Your task to perform on an android device: refresh tabs in the chrome app Image 0: 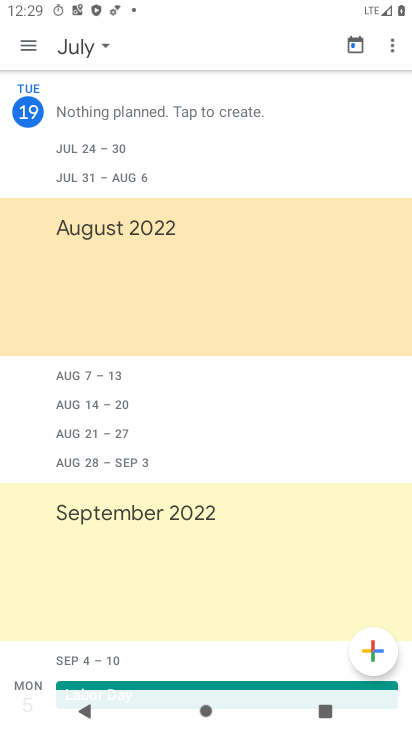
Step 0: press home button
Your task to perform on an android device: refresh tabs in the chrome app Image 1: 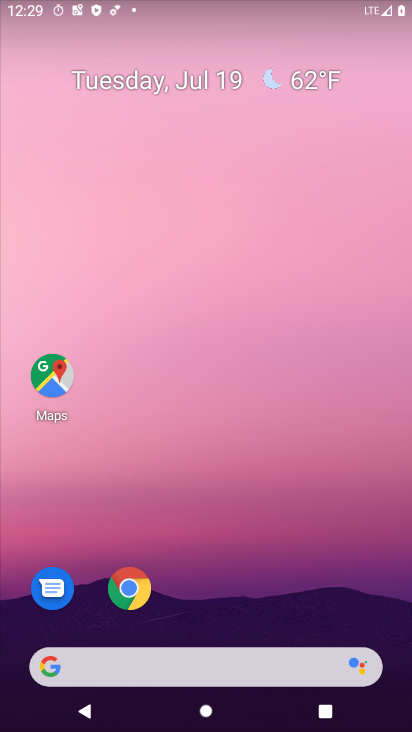
Step 1: click (131, 601)
Your task to perform on an android device: refresh tabs in the chrome app Image 2: 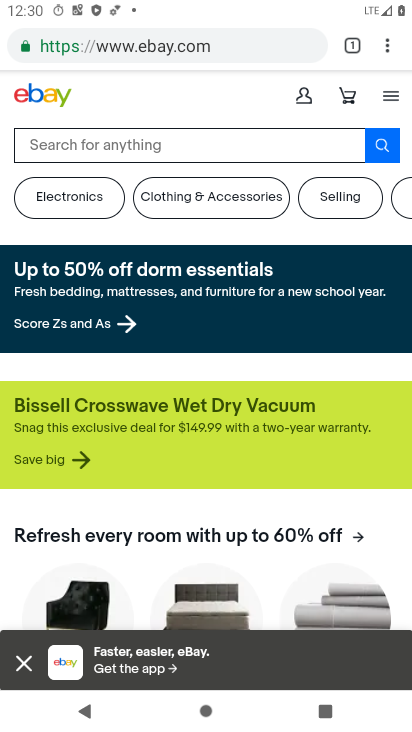
Step 2: click (383, 39)
Your task to perform on an android device: refresh tabs in the chrome app Image 3: 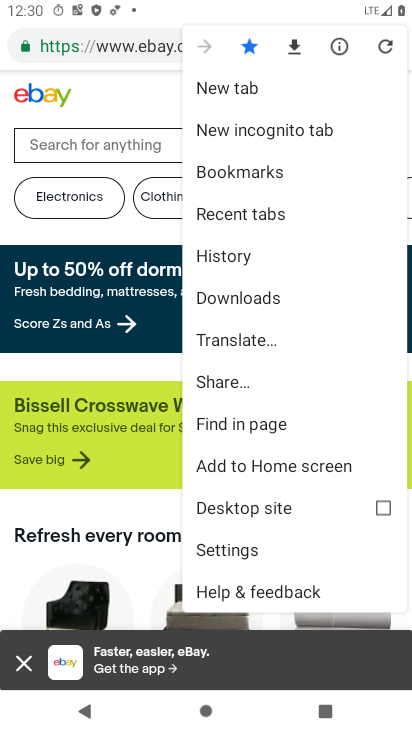
Step 3: click (383, 39)
Your task to perform on an android device: refresh tabs in the chrome app Image 4: 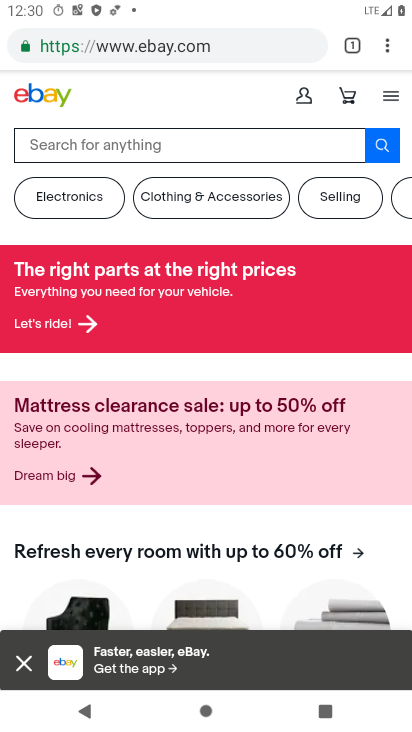
Step 4: task complete